Your task to perform on an android device: Turn on the flashlight Image 0: 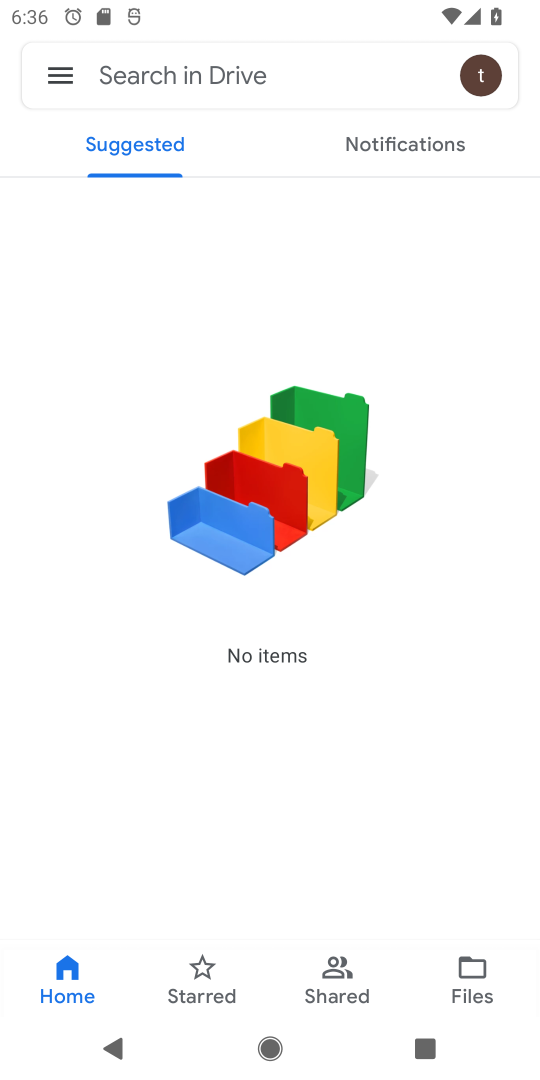
Step 0: press home button
Your task to perform on an android device: Turn on the flashlight Image 1: 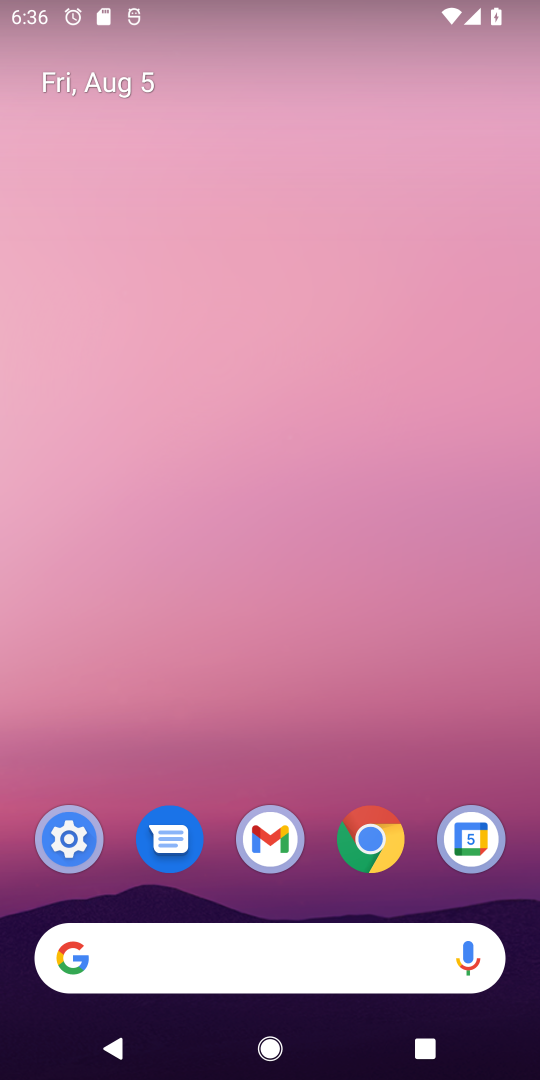
Step 1: drag from (283, 748) to (283, 21)
Your task to perform on an android device: Turn on the flashlight Image 2: 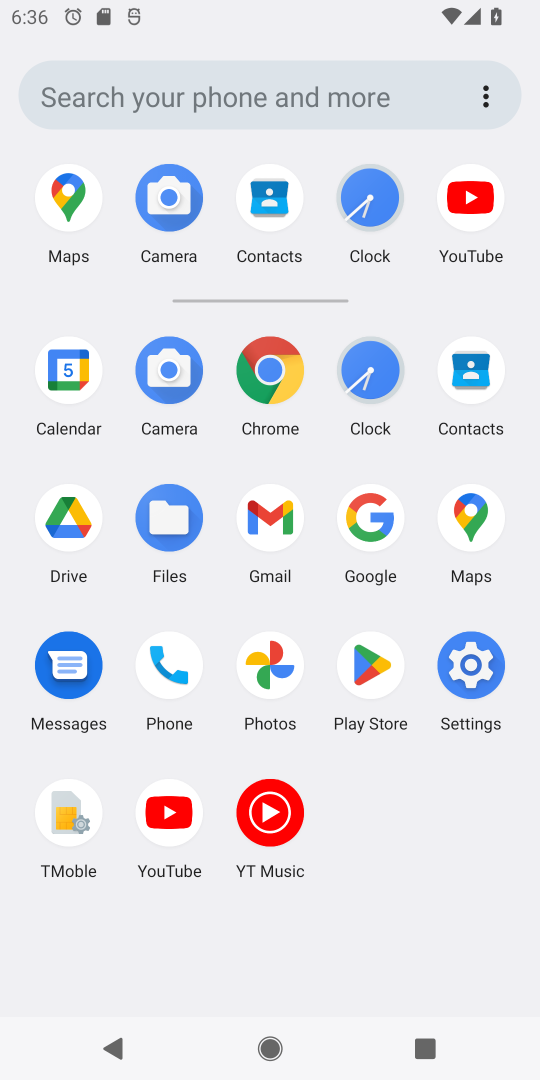
Step 2: click (462, 661)
Your task to perform on an android device: Turn on the flashlight Image 3: 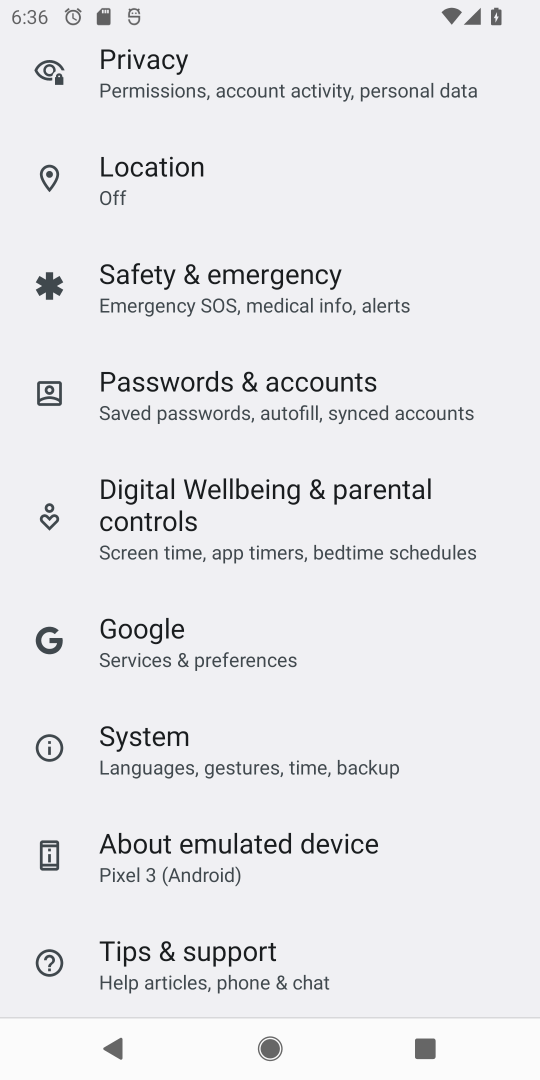
Step 3: task complete